Your task to perform on an android device: Is it going to rain this weekend? Image 0: 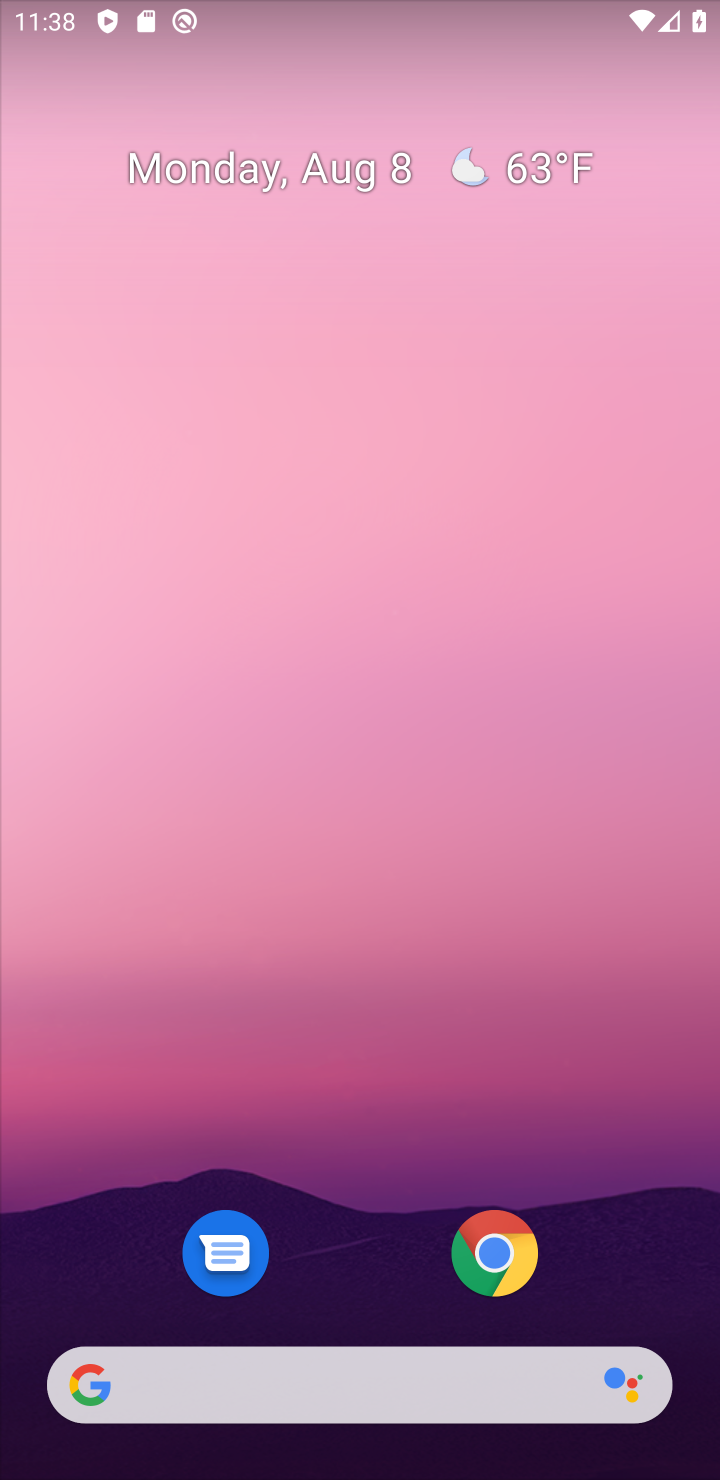
Step 0: drag from (519, 613) to (344, 39)
Your task to perform on an android device: Is it going to rain this weekend? Image 1: 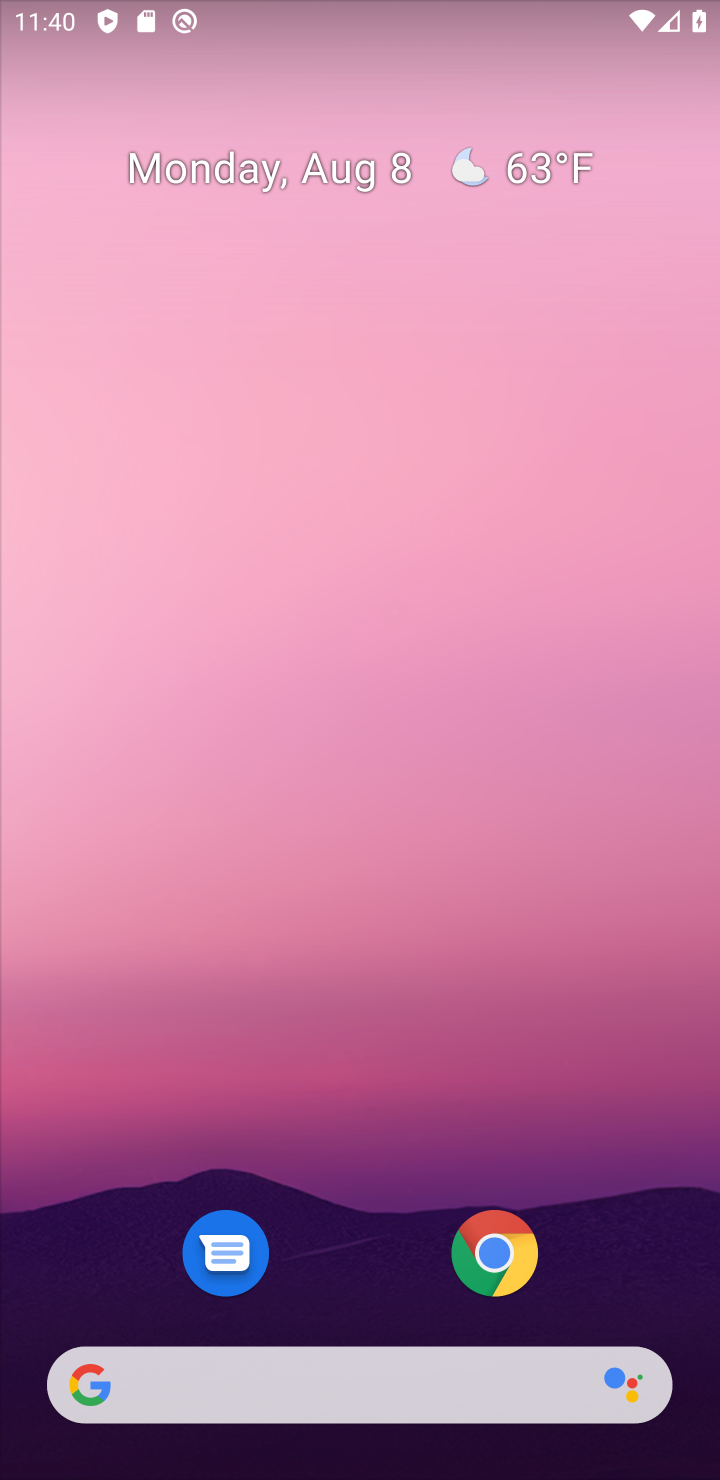
Step 1: drag from (533, 901) to (334, 2)
Your task to perform on an android device: Is it going to rain this weekend? Image 2: 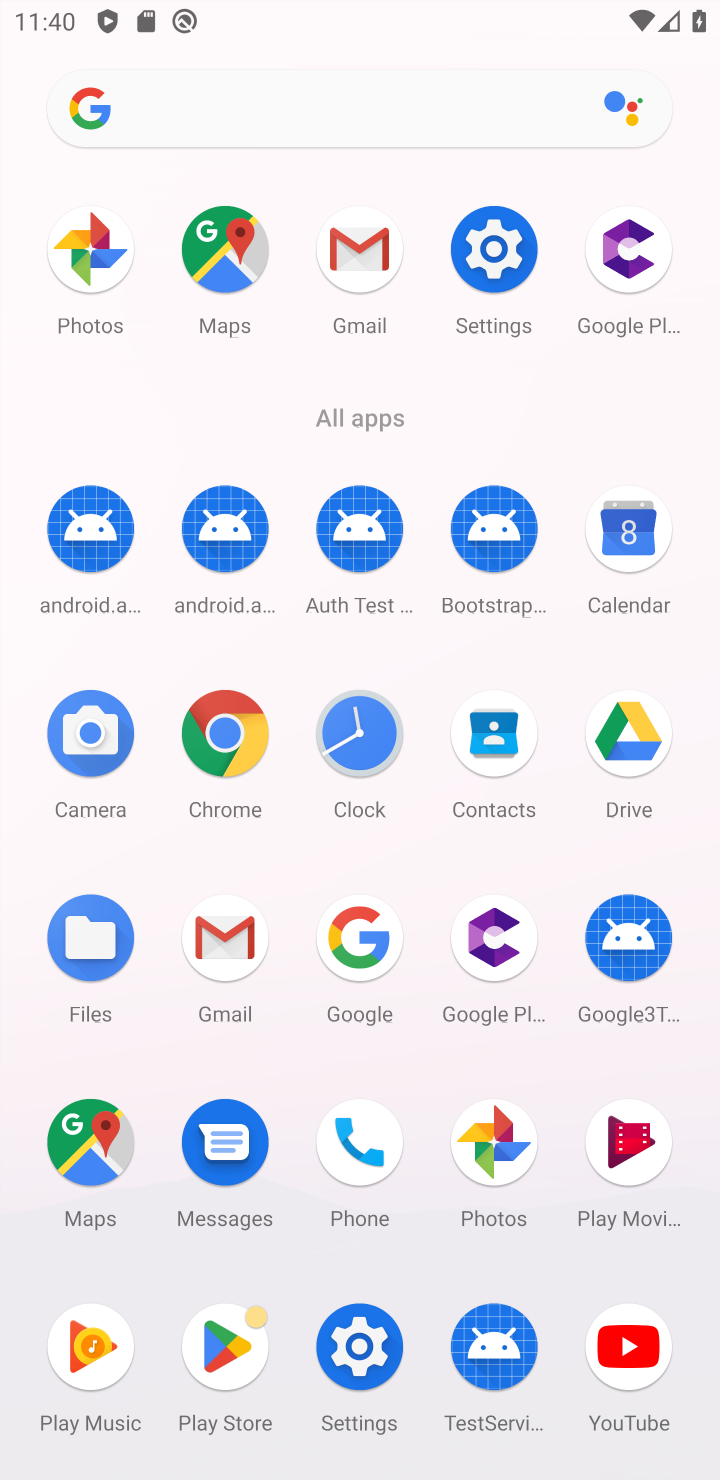
Step 2: click (346, 943)
Your task to perform on an android device: Is it going to rain this weekend? Image 3: 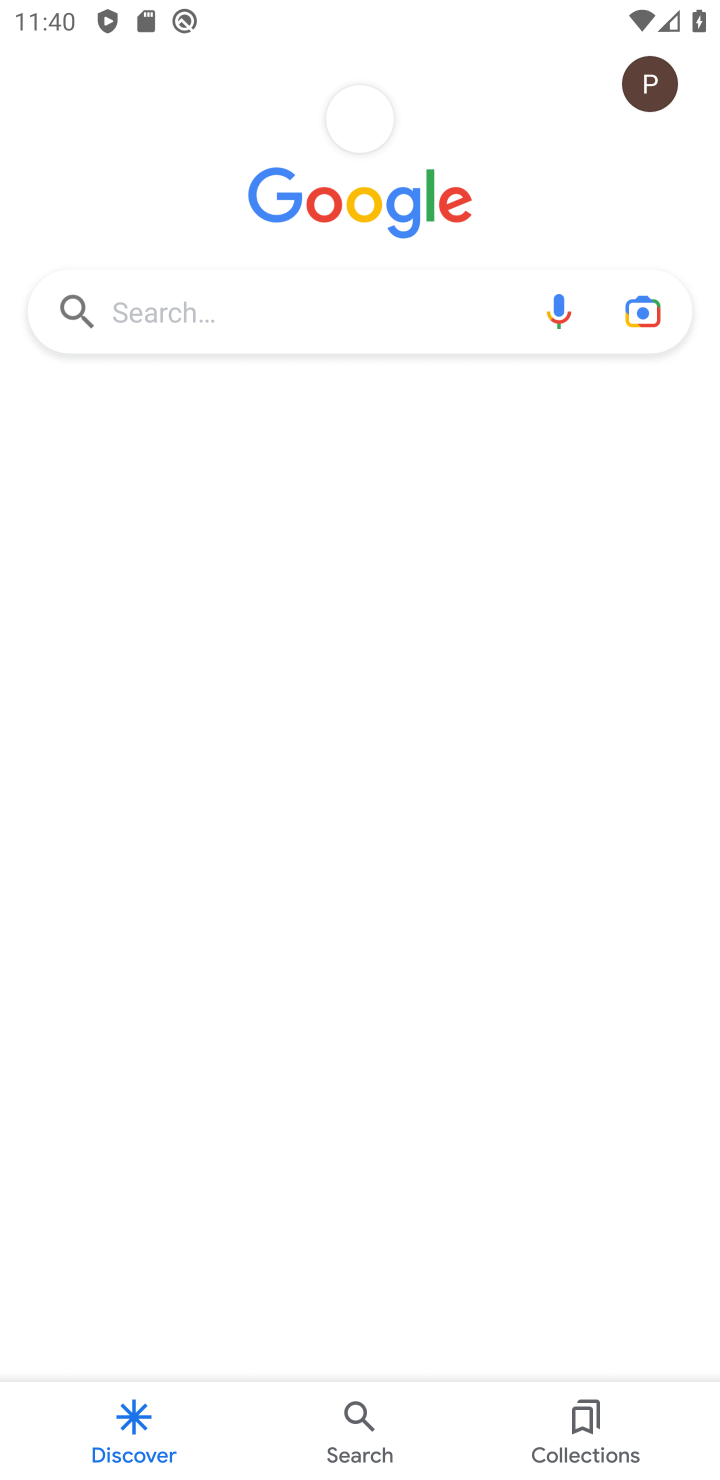
Step 3: click (207, 335)
Your task to perform on an android device: Is it going to rain this weekend? Image 4: 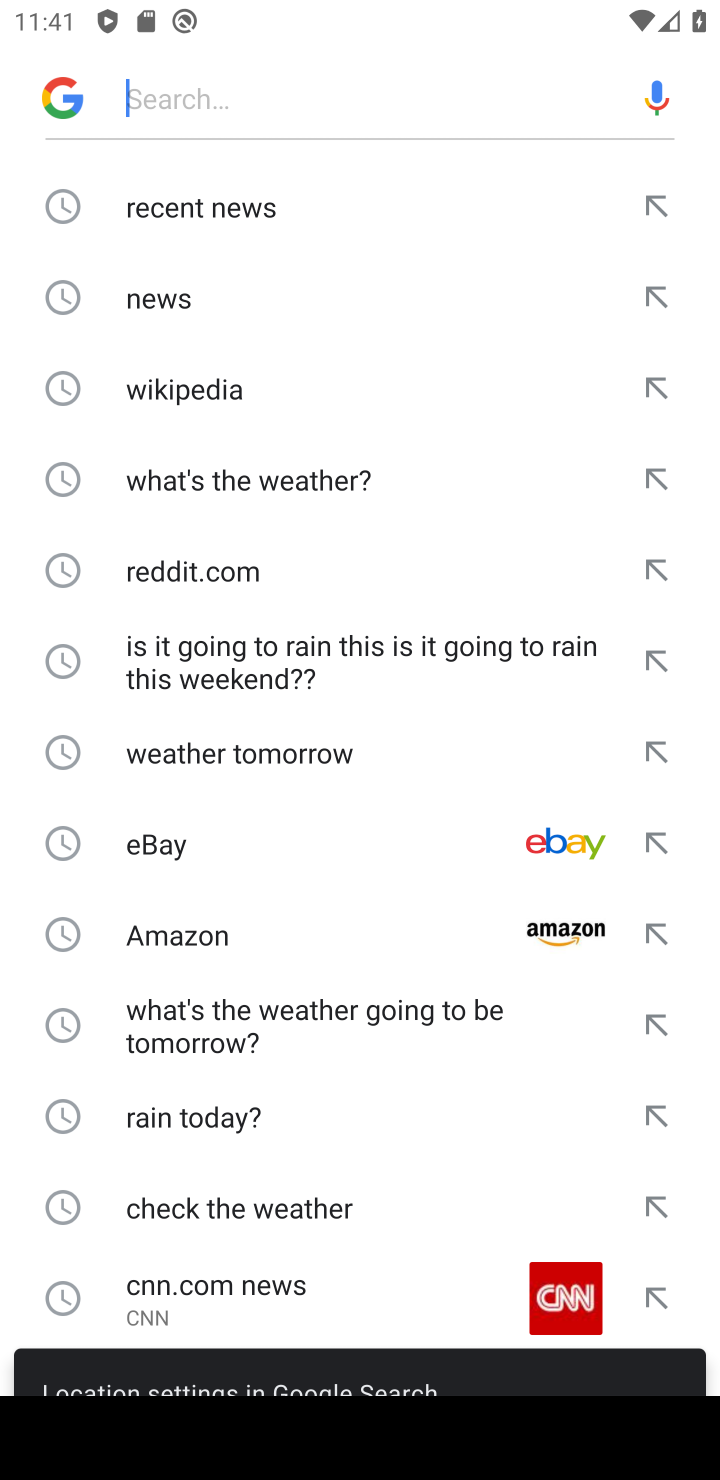
Step 4: drag from (254, 1078) to (155, 515)
Your task to perform on an android device: Is it going to rain this weekend? Image 5: 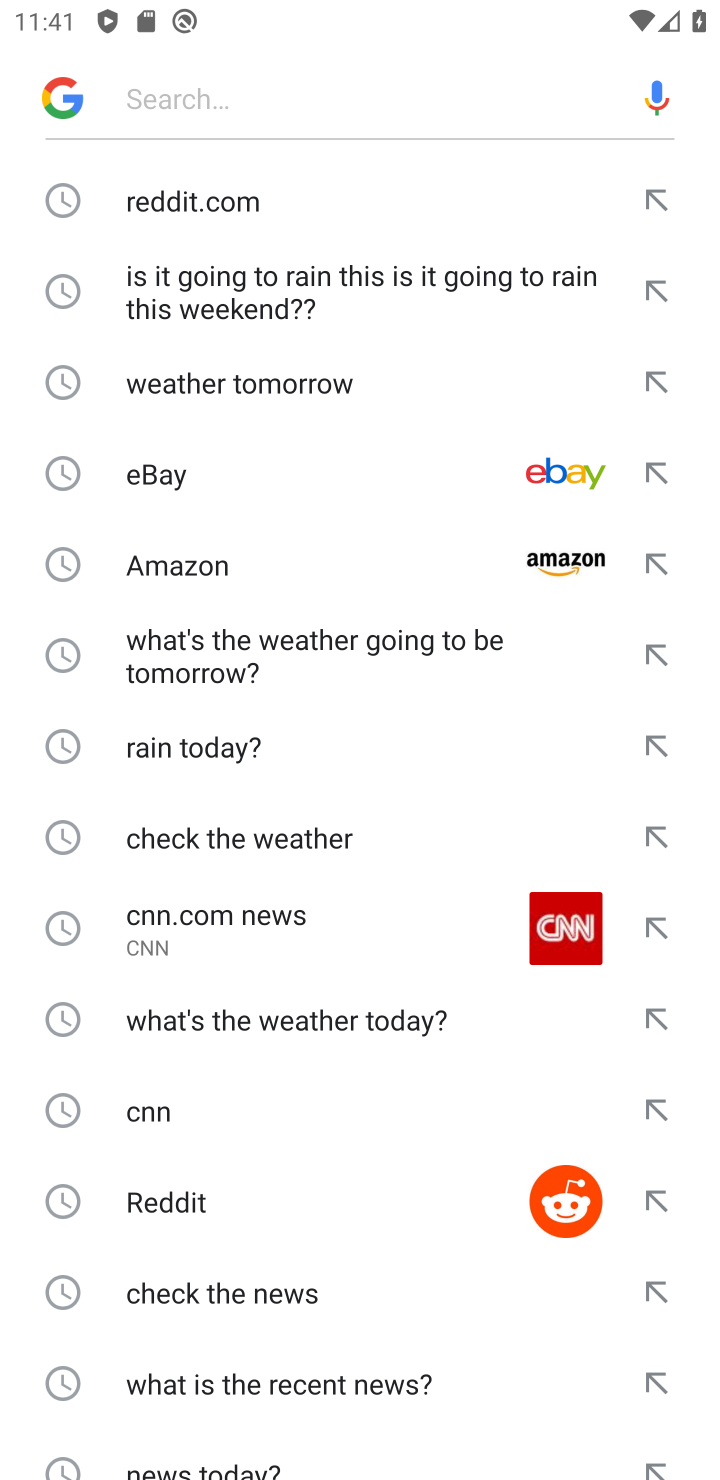
Step 5: type "Is it going to rain this weekend?"
Your task to perform on an android device: Is it going to rain this weekend? Image 6: 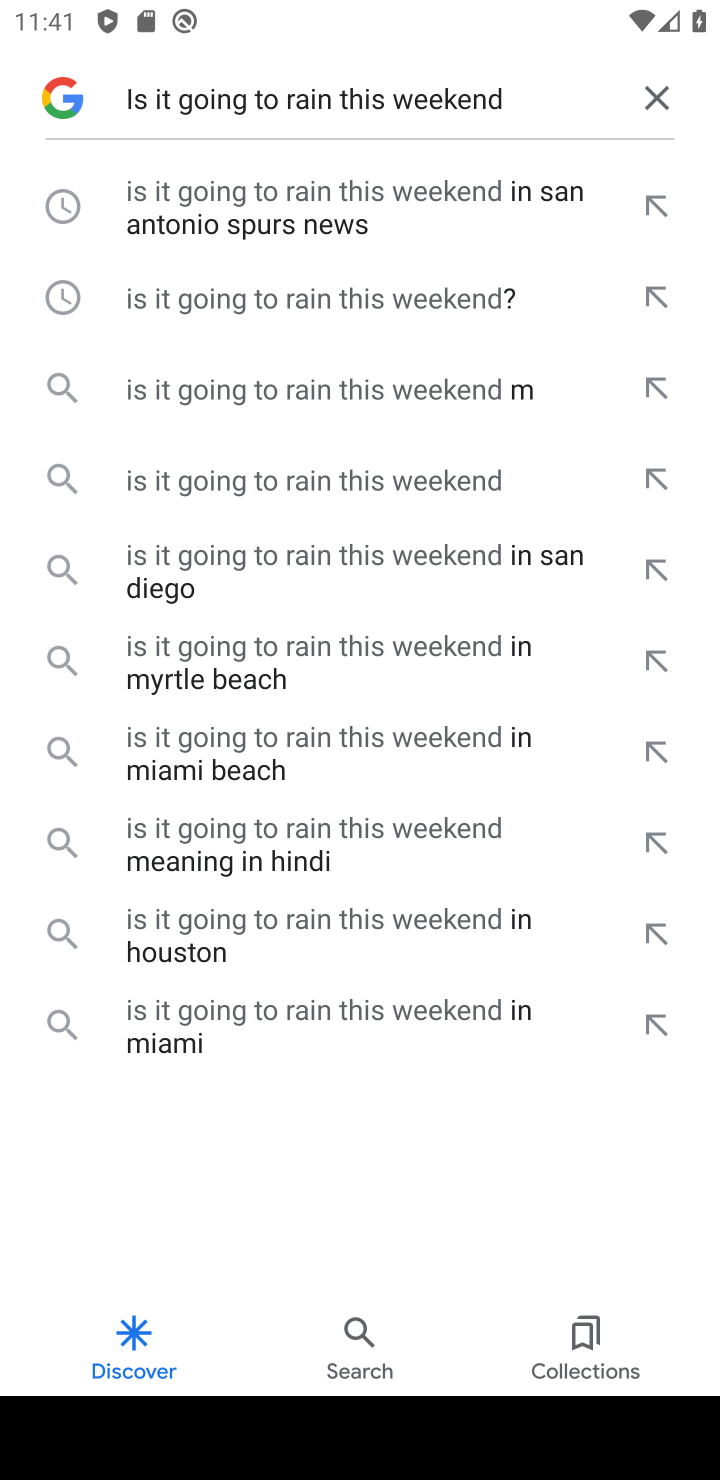
Step 6: click (386, 323)
Your task to perform on an android device: Is it going to rain this weekend? Image 7: 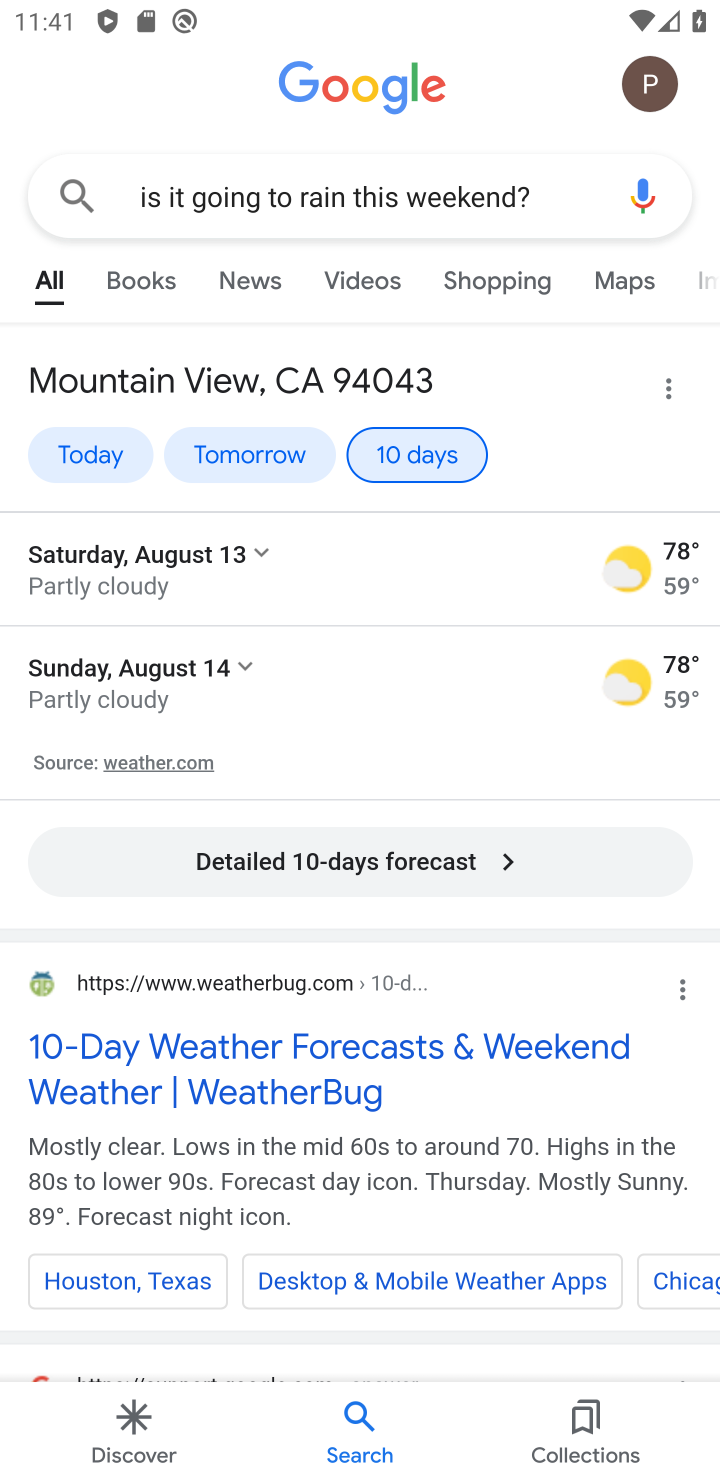
Step 7: task complete